Your task to perform on an android device: Search for the best selling books on Target. Image 0: 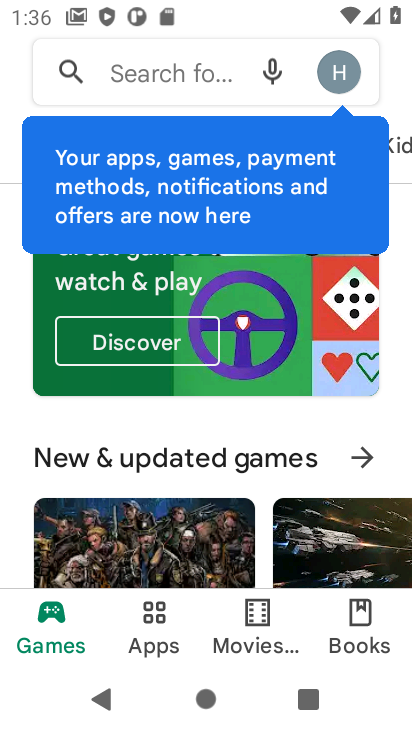
Step 0: press home button
Your task to perform on an android device: Search for the best selling books on Target. Image 1: 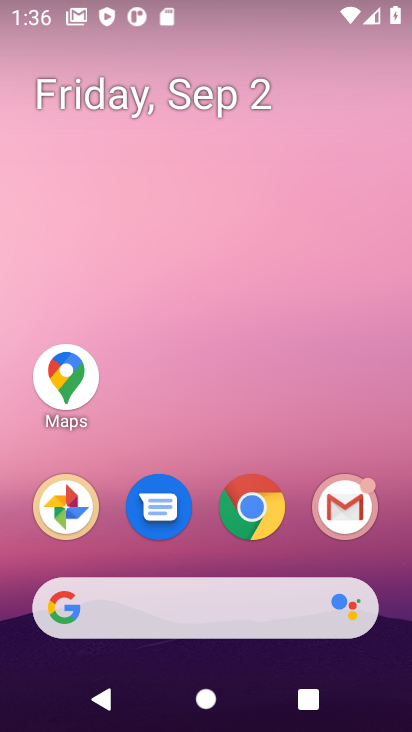
Step 1: click (272, 500)
Your task to perform on an android device: Search for the best selling books on Target. Image 2: 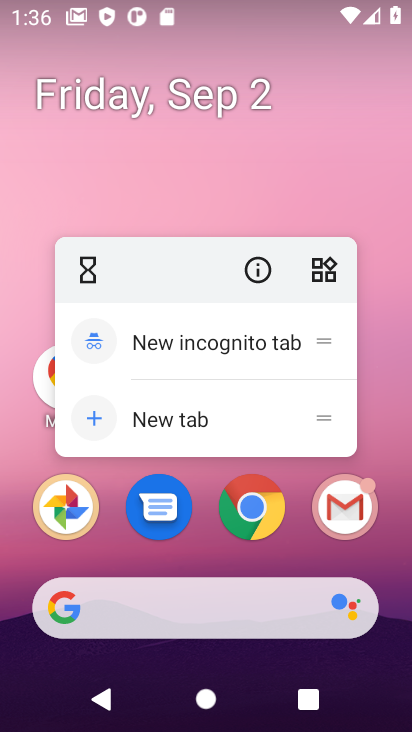
Step 2: click (272, 500)
Your task to perform on an android device: Search for the best selling books on Target. Image 3: 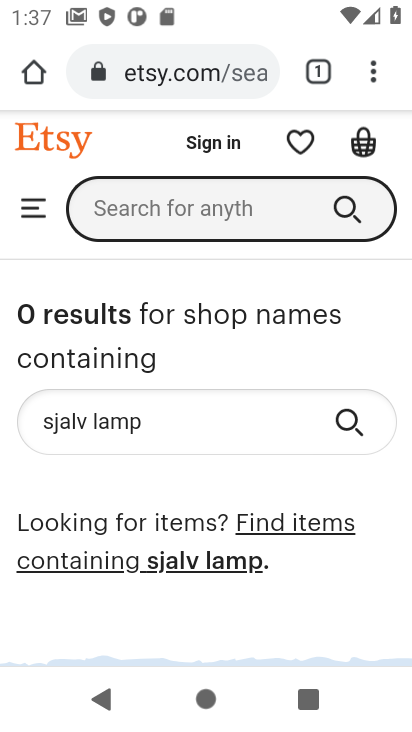
Step 3: click (134, 74)
Your task to perform on an android device: Search for the best selling books on Target. Image 4: 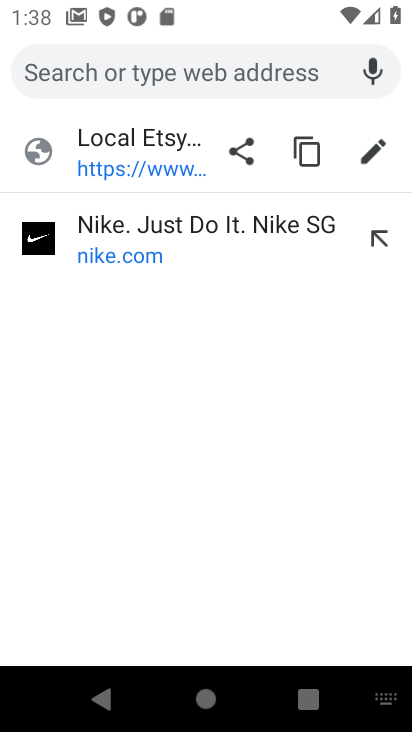
Step 4: type "target"
Your task to perform on an android device: Search for the best selling books on Target. Image 5: 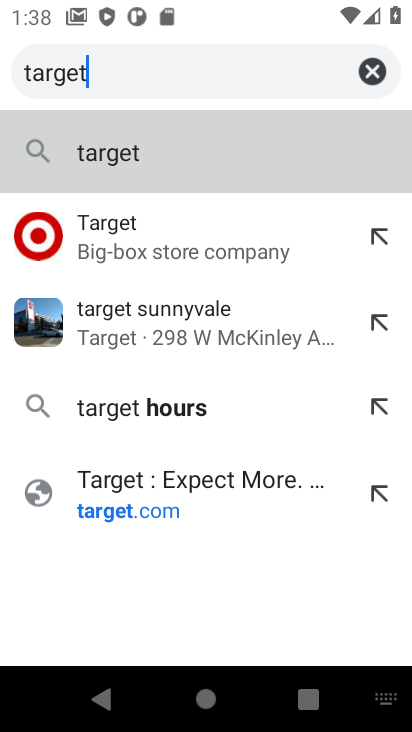
Step 5: click (96, 211)
Your task to perform on an android device: Search for the best selling books on Target. Image 6: 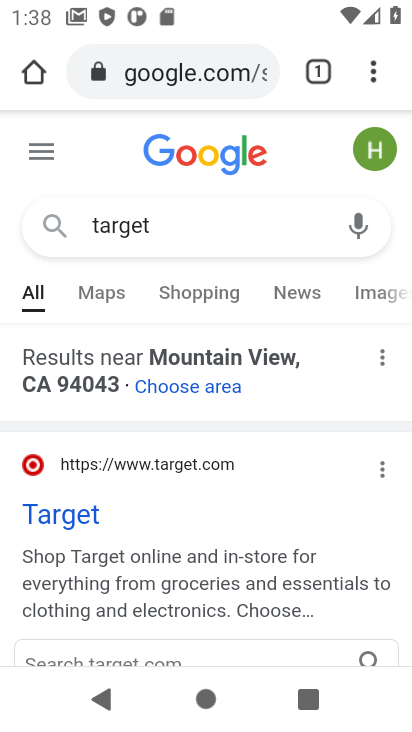
Step 6: click (79, 520)
Your task to perform on an android device: Search for the best selling books on Target. Image 7: 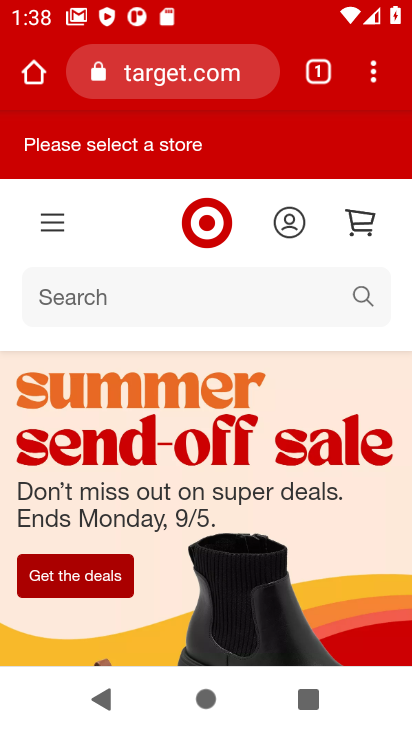
Step 7: click (159, 290)
Your task to perform on an android device: Search for the best selling books on Target. Image 8: 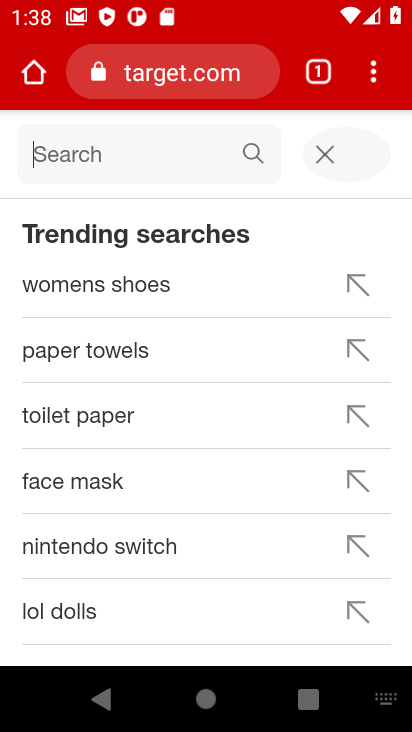
Step 8: type "best  selling"
Your task to perform on an android device: Search for the best selling books on Target. Image 9: 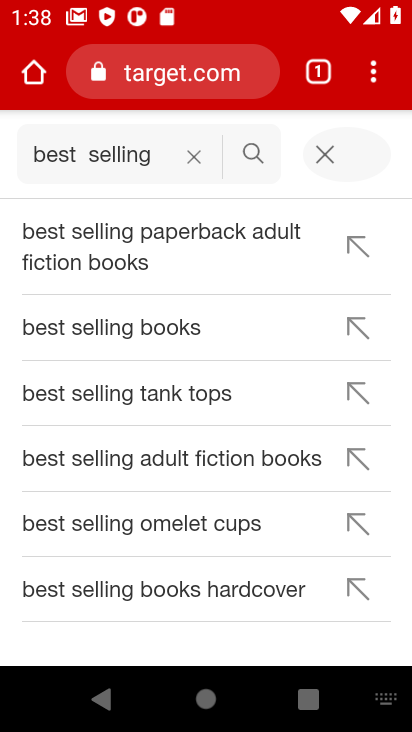
Step 9: click (200, 266)
Your task to perform on an android device: Search for the best selling books on Target. Image 10: 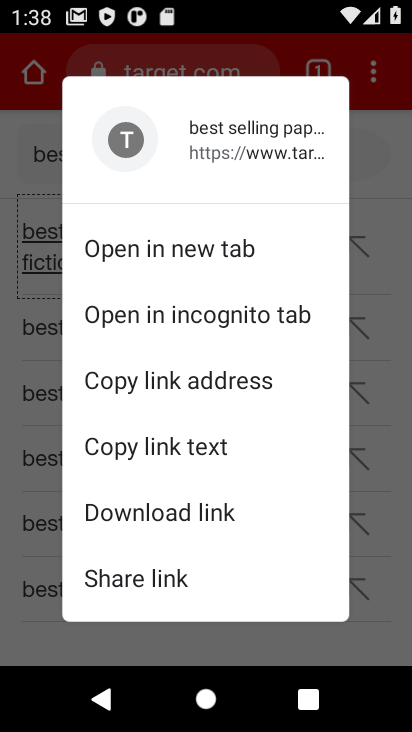
Step 10: click (247, 243)
Your task to perform on an android device: Search for the best selling books on Target. Image 11: 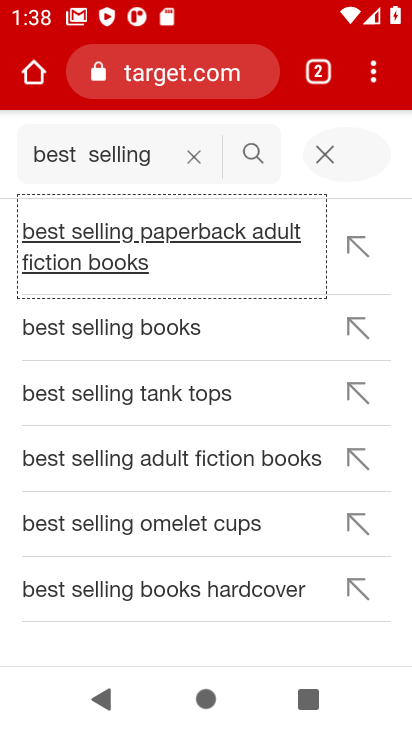
Step 11: task complete